Your task to perform on an android device: See recent photos Image 0: 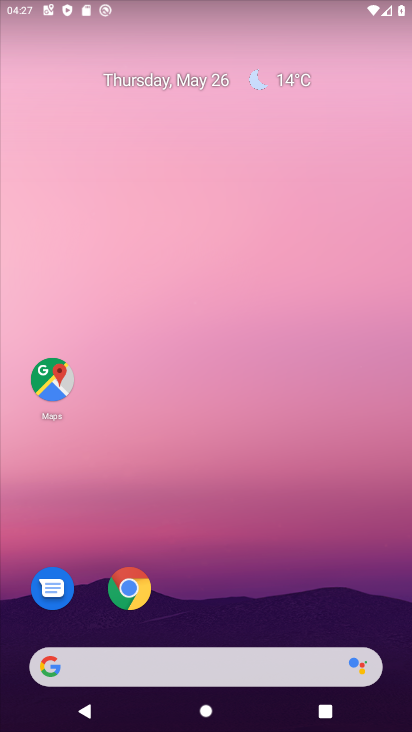
Step 0: drag from (256, 588) to (343, 0)
Your task to perform on an android device: See recent photos Image 1: 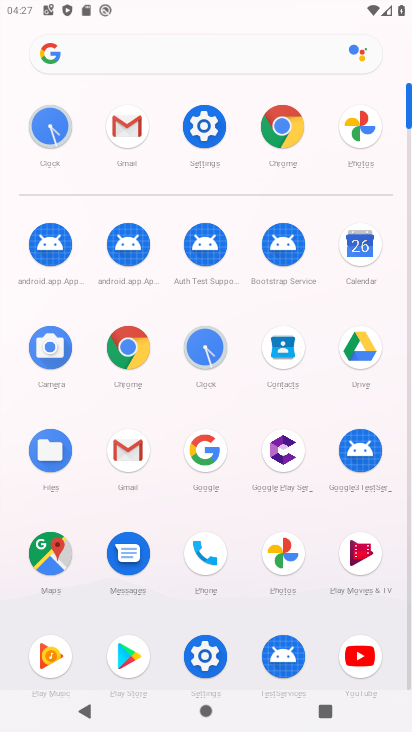
Step 1: click (277, 549)
Your task to perform on an android device: See recent photos Image 2: 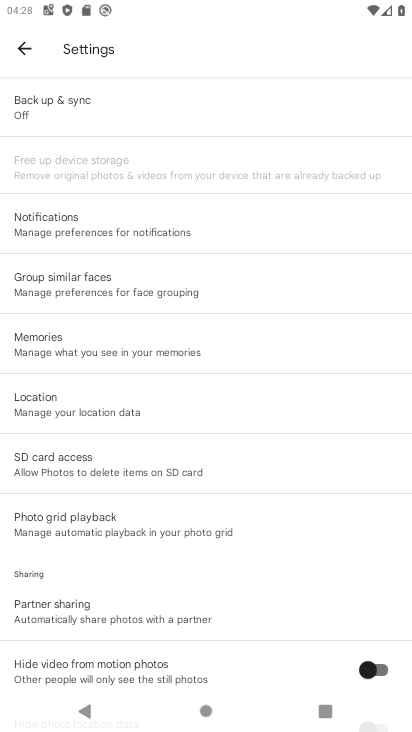
Step 2: click (30, 59)
Your task to perform on an android device: See recent photos Image 3: 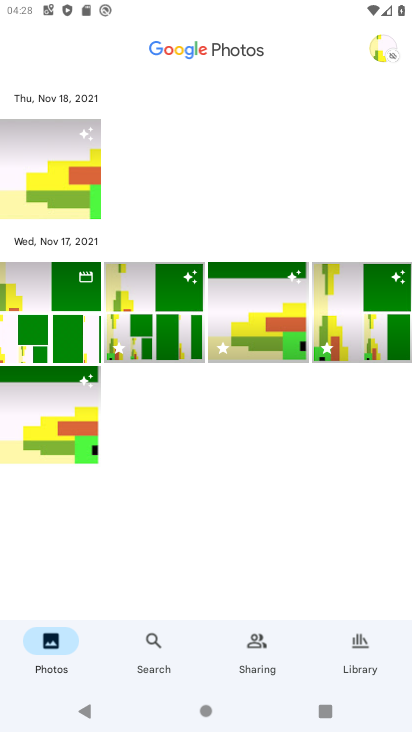
Step 3: click (384, 61)
Your task to perform on an android device: See recent photos Image 4: 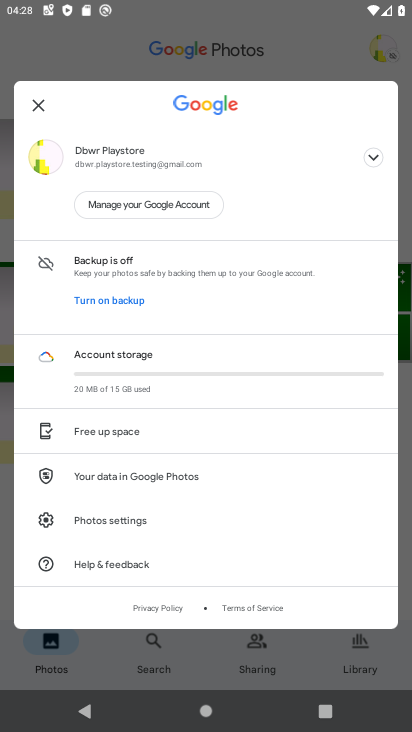
Step 4: click (124, 506)
Your task to perform on an android device: See recent photos Image 5: 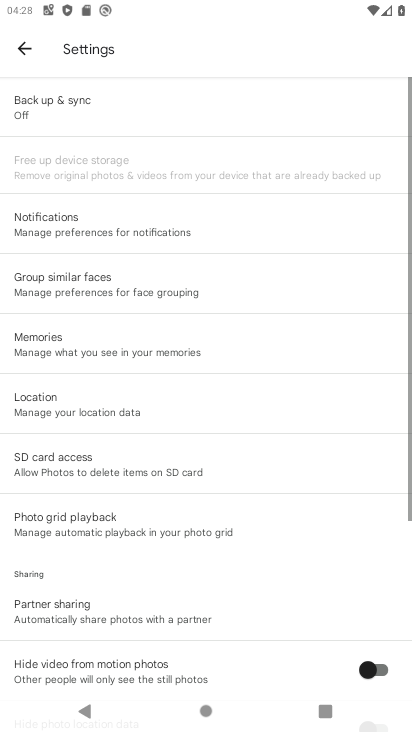
Step 5: task complete